Your task to perform on an android device: Show me popular videos on Youtube Image 0: 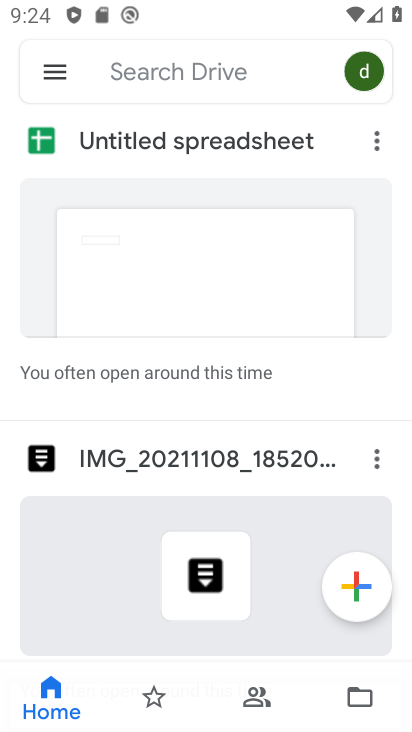
Step 0: press home button
Your task to perform on an android device: Show me popular videos on Youtube Image 1: 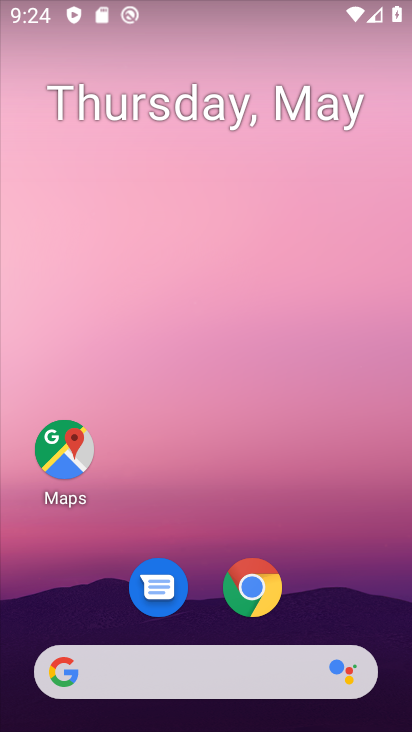
Step 1: drag from (380, 641) to (350, 12)
Your task to perform on an android device: Show me popular videos on Youtube Image 2: 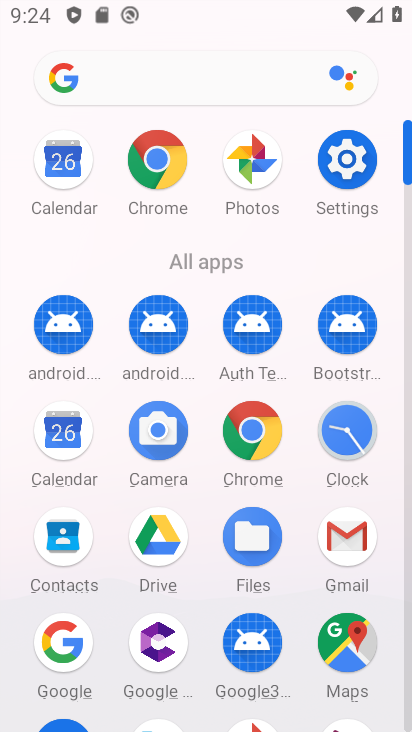
Step 2: click (405, 561)
Your task to perform on an android device: Show me popular videos on Youtube Image 3: 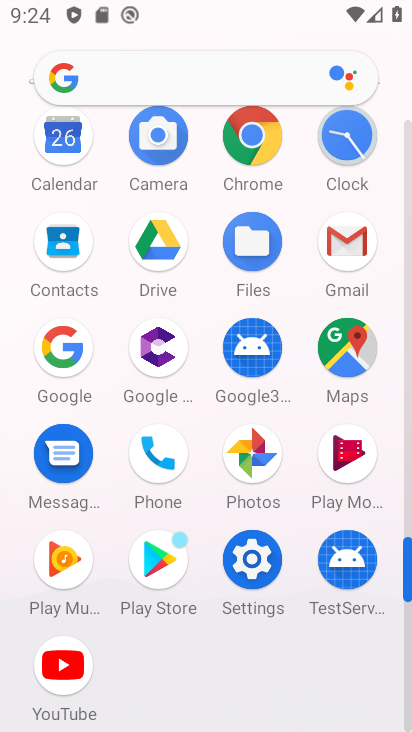
Step 3: click (57, 671)
Your task to perform on an android device: Show me popular videos on Youtube Image 4: 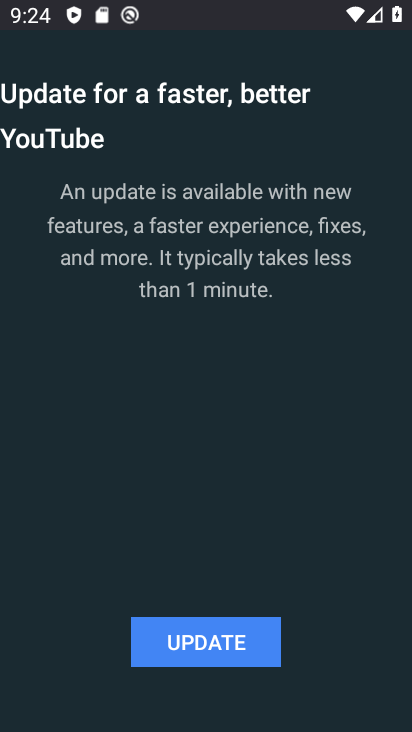
Step 4: click (212, 634)
Your task to perform on an android device: Show me popular videos on Youtube Image 5: 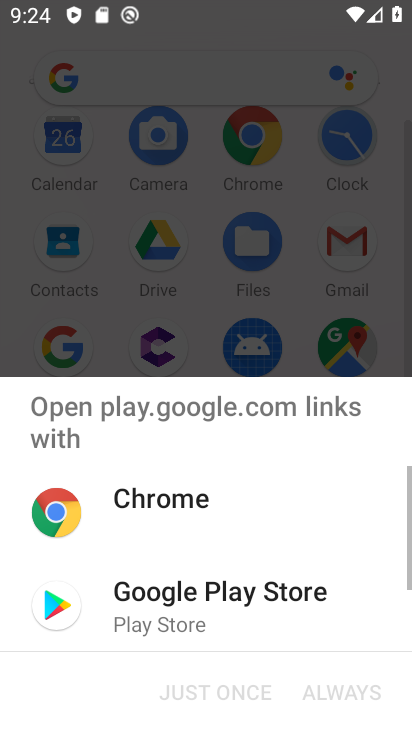
Step 5: click (146, 598)
Your task to perform on an android device: Show me popular videos on Youtube Image 6: 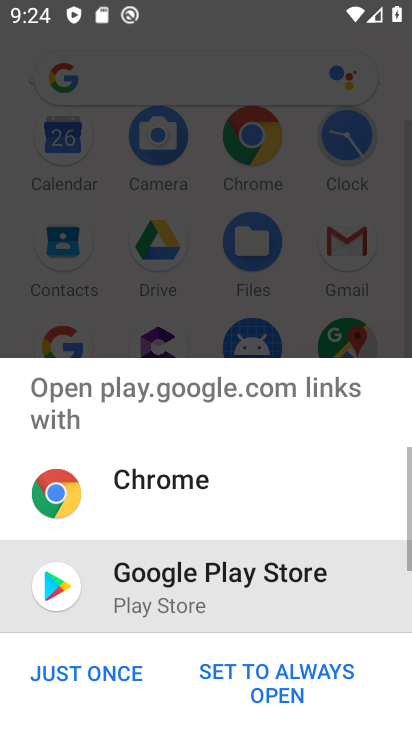
Step 6: click (121, 669)
Your task to perform on an android device: Show me popular videos on Youtube Image 7: 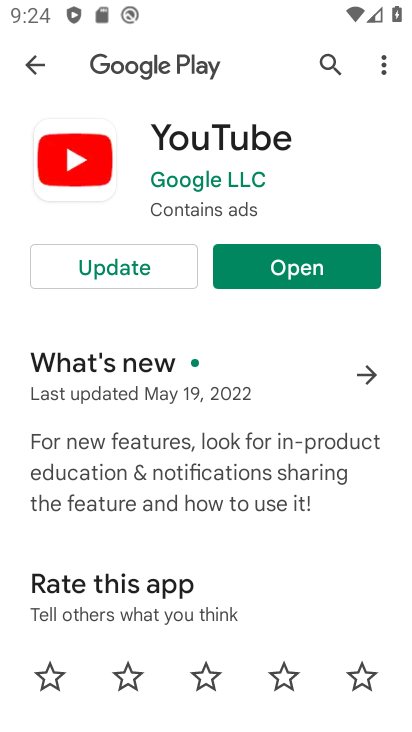
Step 7: click (103, 265)
Your task to perform on an android device: Show me popular videos on Youtube Image 8: 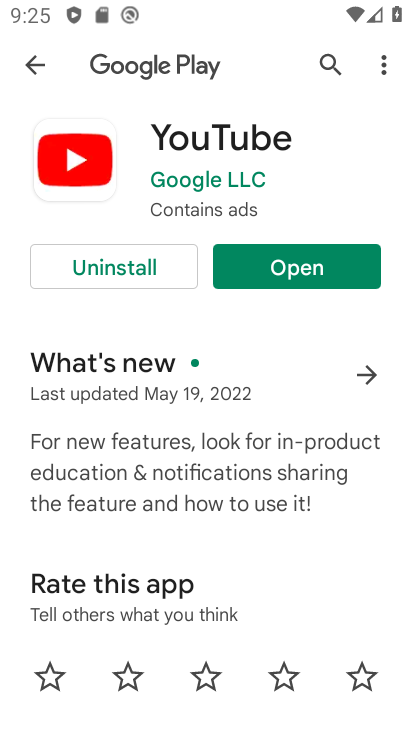
Step 8: click (311, 277)
Your task to perform on an android device: Show me popular videos on Youtube Image 9: 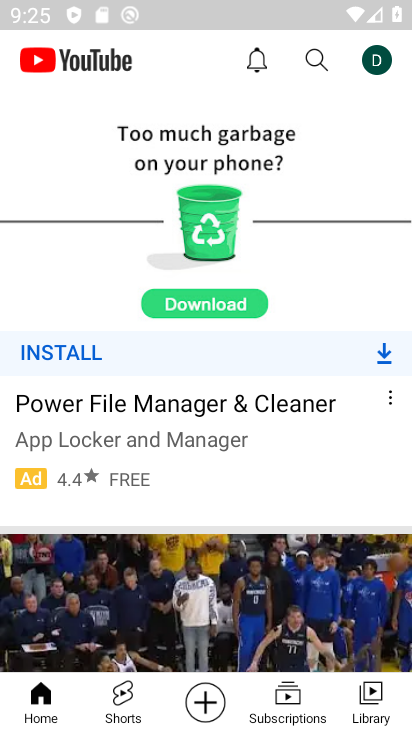
Step 9: task complete